Your task to perform on an android device: What's the weather going to be this weekend? Image 0: 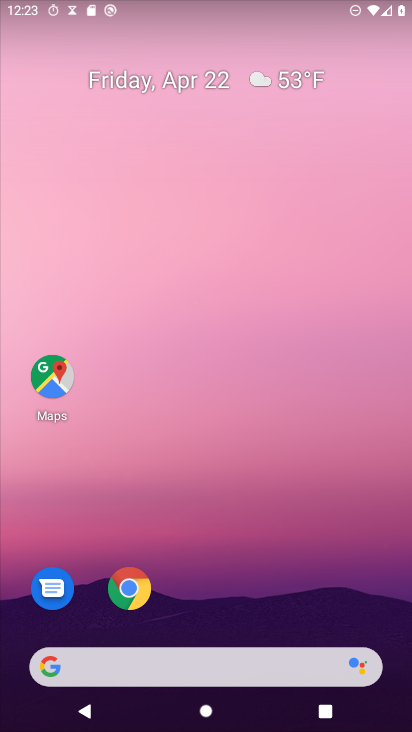
Step 0: drag from (288, 601) to (390, 90)
Your task to perform on an android device: What's the weather going to be this weekend? Image 1: 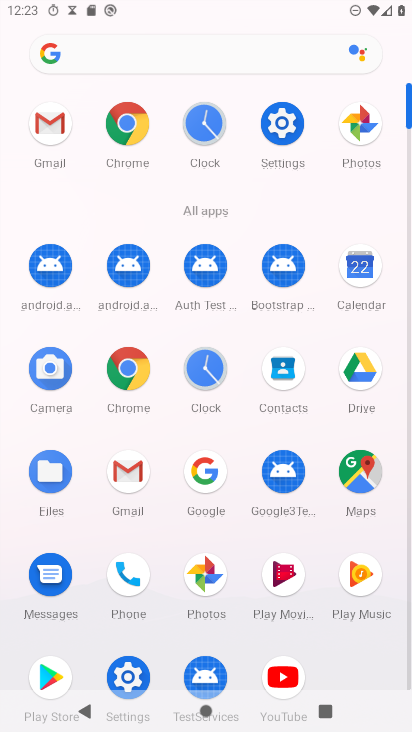
Step 1: click (174, 50)
Your task to perform on an android device: What's the weather going to be this weekend? Image 2: 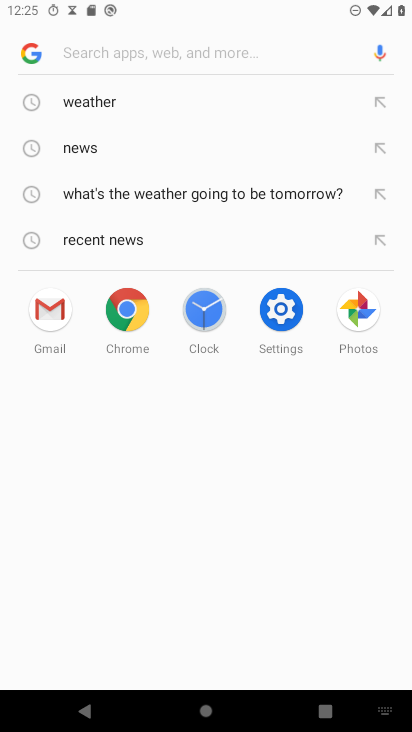
Step 2: type "what's the weather going to be this weekend "
Your task to perform on an android device: What's the weather going to be this weekend? Image 3: 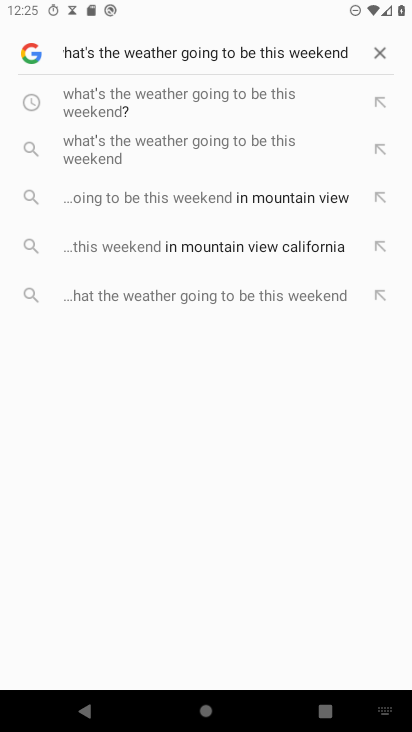
Step 3: click (148, 106)
Your task to perform on an android device: What's the weather going to be this weekend? Image 4: 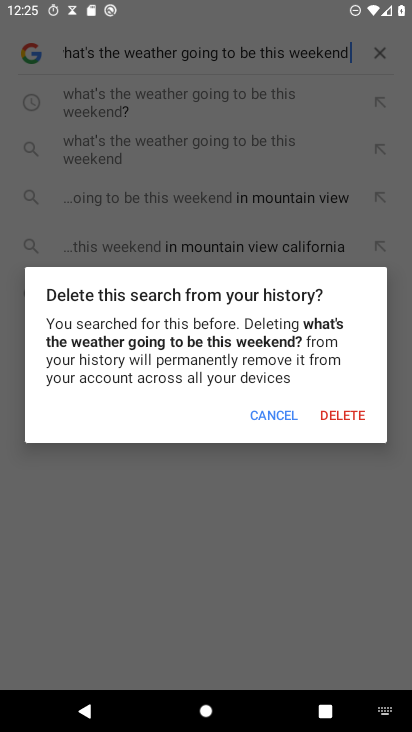
Step 4: click (275, 413)
Your task to perform on an android device: What's the weather going to be this weekend? Image 5: 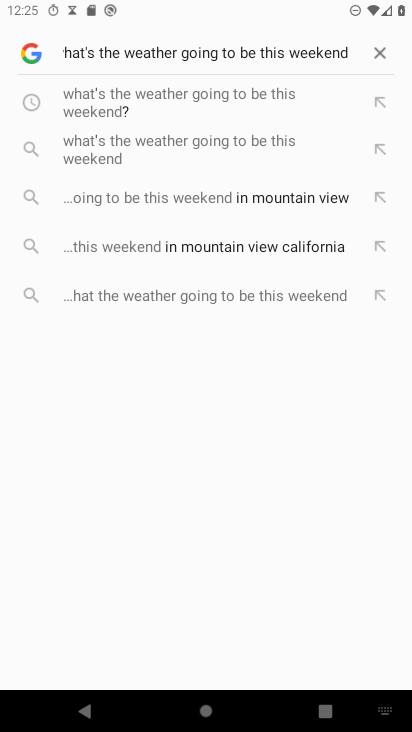
Step 5: click (190, 108)
Your task to perform on an android device: What's the weather going to be this weekend? Image 6: 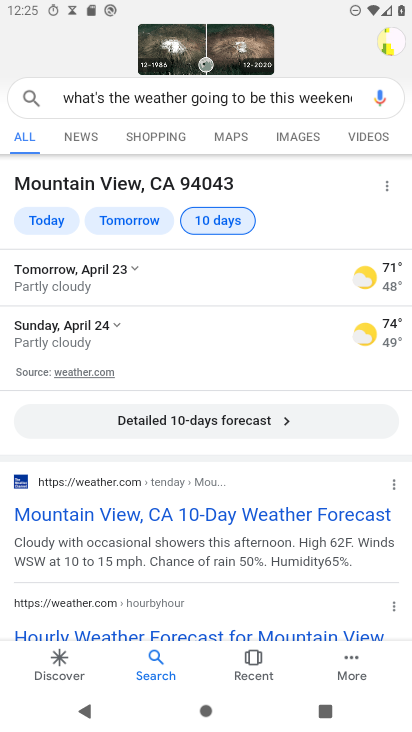
Step 6: task complete